Your task to perform on an android device: Open Youtube and go to "Your channel" Image 0: 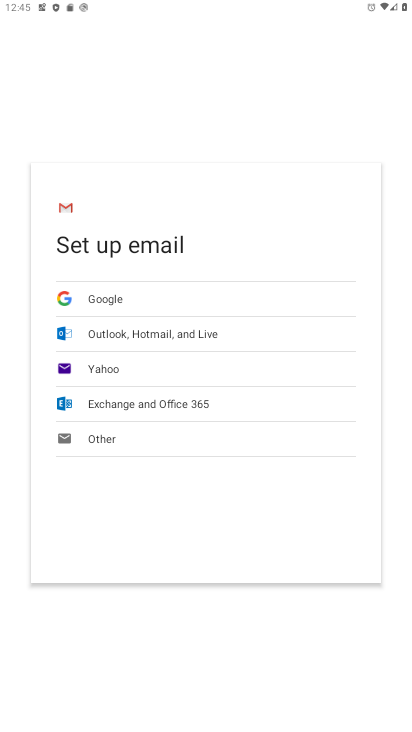
Step 0: press home button
Your task to perform on an android device: Open Youtube and go to "Your channel" Image 1: 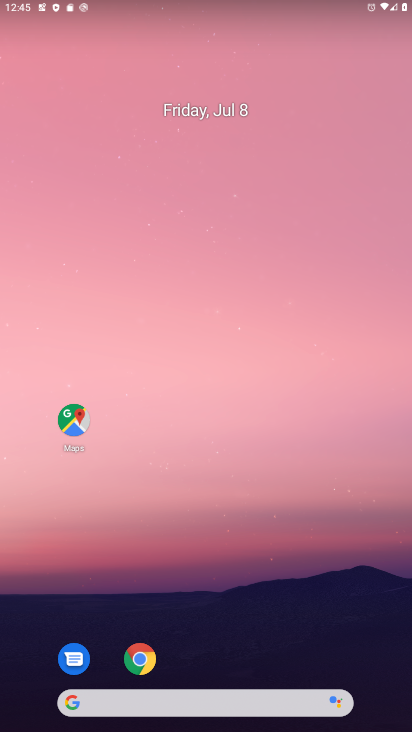
Step 1: drag from (226, 631) to (126, 128)
Your task to perform on an android device: Open Youtube and go to "Your channel" Image 2: 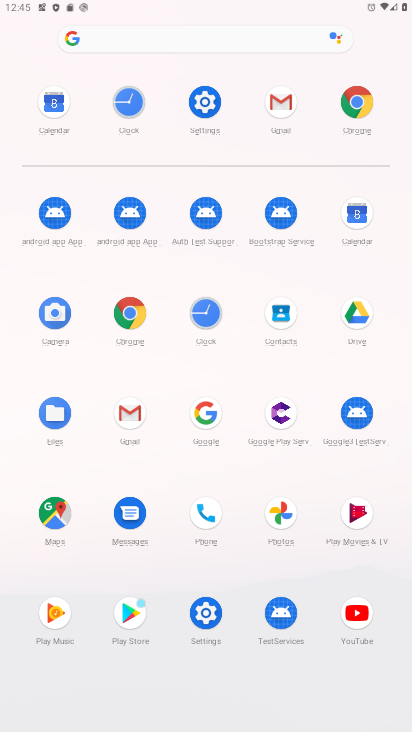
Step 2: click (357, 615)
Your task to perform on an android device: Open Youtube and go to "Your channel" Image 3: 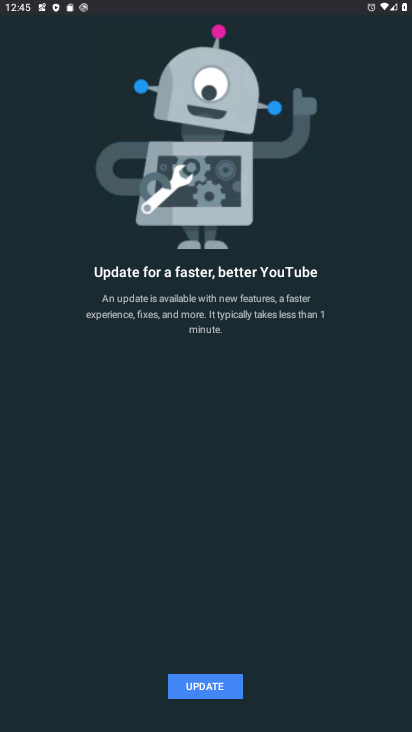
Step 3: click (186, 685)
Your task to perform on an android device: Open Youtube and go to "Your channel" Image 4: 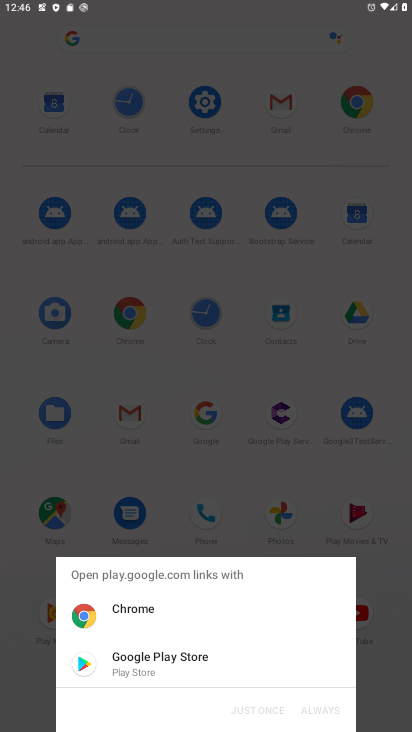
Step 4: click (128, 647)
Your task to perform on an android device: Open Youtube and go to "Your channel" Image 5: 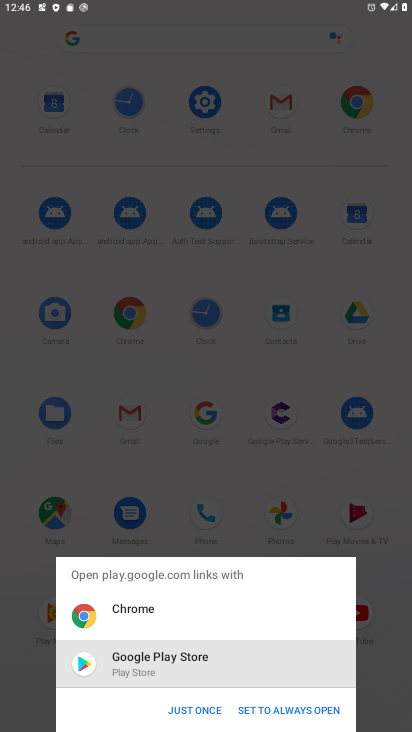
Step 5: click (210, 706)
Your task to perform on an android device: Open Youtube and go to "Your channel" Image 6: 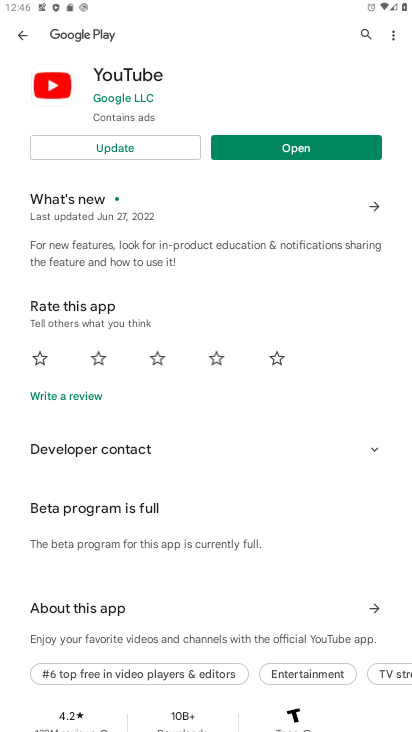
Step 6: click (117, 145)
Your task to perform on an android device: Open Youtube and go to "Your channel" Image 7: 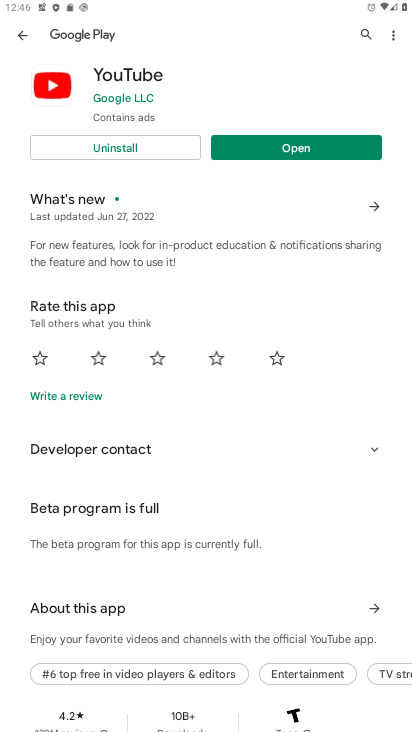
Step 7: click (296, 148)
Your task to perform on an android device: Open Youtube and go to "Your channel" Image 8: 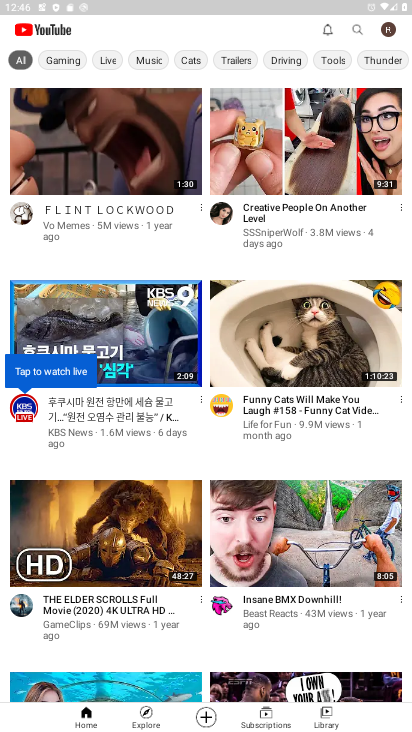
Step 8: click (384, 28)
Your task to perform on an android device: Open Youtube and go to "Your channel" Image 9: 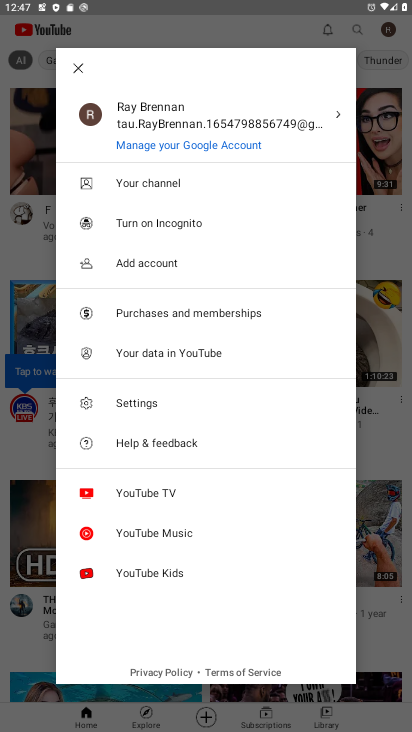
Step 9: click (164, 185)
Your task to perform on an android device: Open Youtube and go to "Your channel" Image 10: 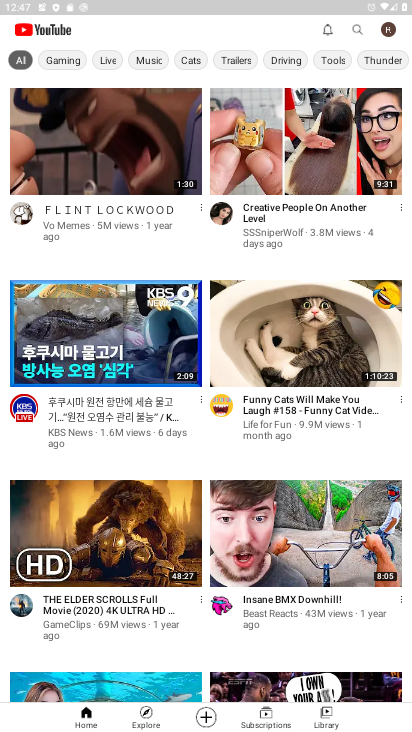
Step 10: task complete